Your task to perform on an android device: Open wifi settings Image 0: 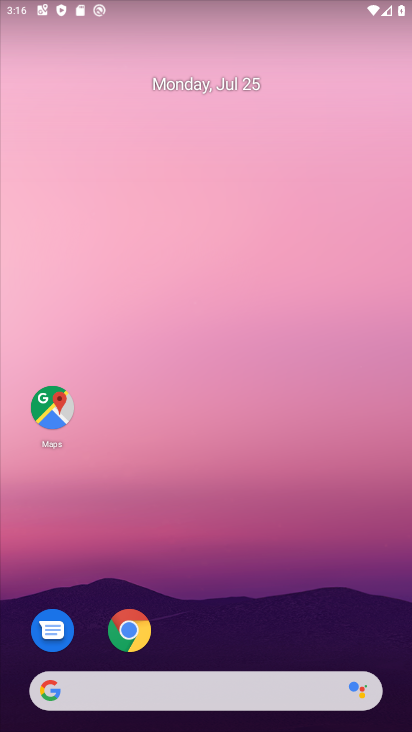
Step 0: drag from (202, 683) to (210, 2)
Your task to perform on an android device: Open wifi settings Image 1: 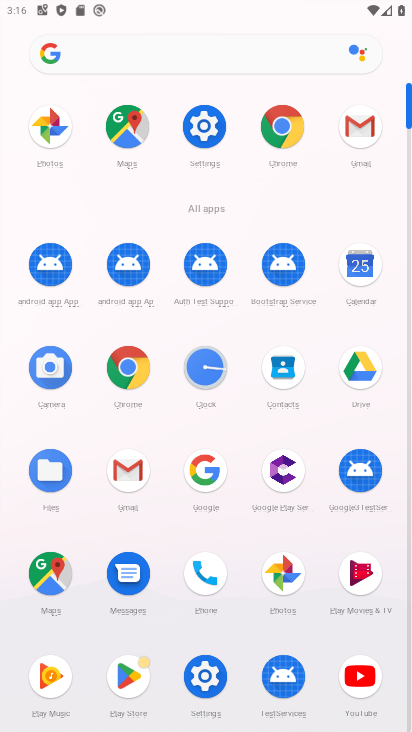
Step 1: click (212, 112)
Your task to perform on an android device: Open wifi settings Image 2: 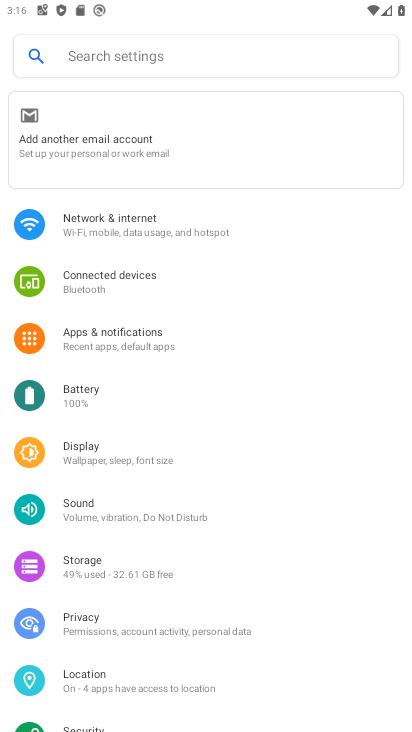
Step 2: click (116, 222)
Your task to perform on an android device: Open wifi settings Image 3: 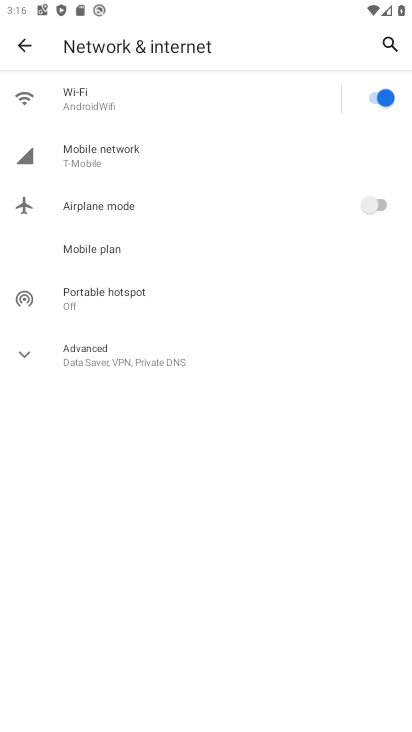
Step 3: click (111, 101)
Your task to perform on an android device: Open wifi settings Image 4: 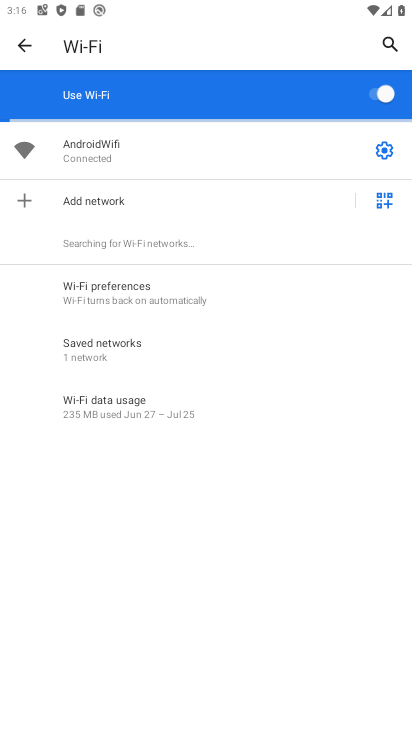
Step 4: task complete